Your task to perform on an android device: turn smart compose on in the gmail app Image 0: 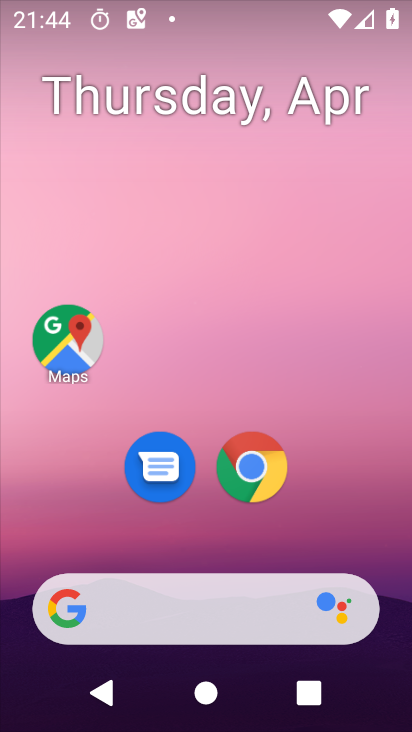
Step 0: drag from (204, 544) to (400, 447)
Your task to perform on an android device: turn smart compose on in the gmail app Image 1: 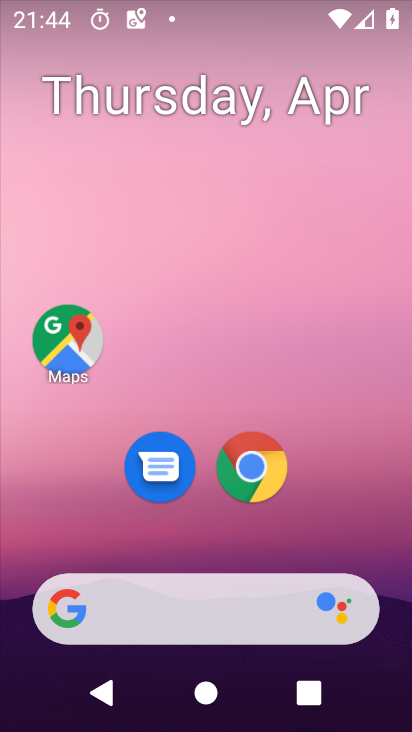
Step 1: click (350, 476)
Your task to perform on an android device: turn smart compose on in the gmail app Image 2: 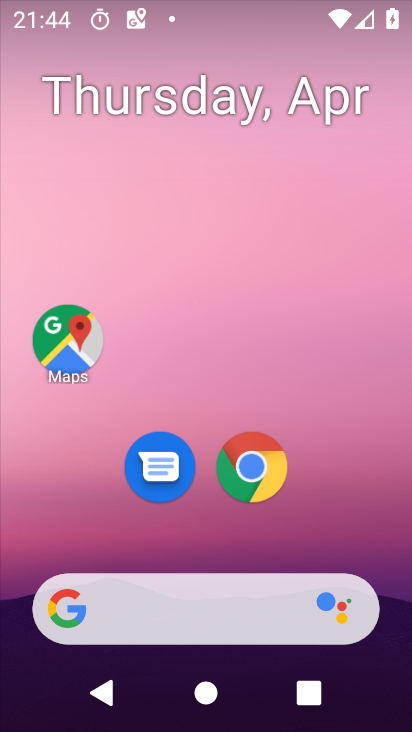
Step 2: click (262, 472)
Your task to perform on an android device: turn smart compose on in the gmail app Image 3: 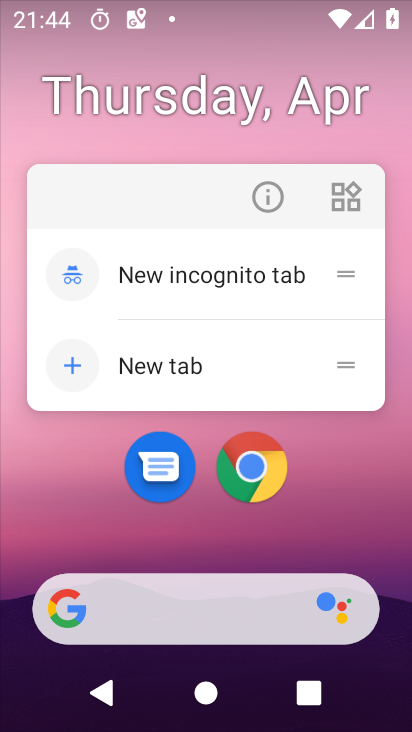
Step 3: click (253, 528)
Your task to perform on an android device: turn smart compose on in the gmail app Image 4: 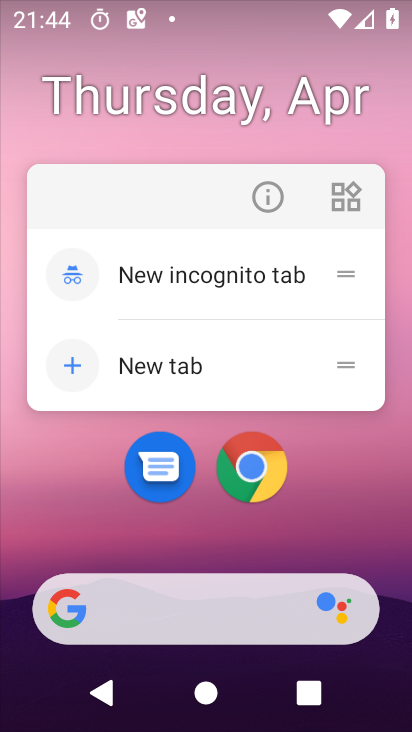
Step 4: drag from (200, 572) to (170, 0)
Your task to perform on an android device: turn smart compose on in the gmail app Image 5: 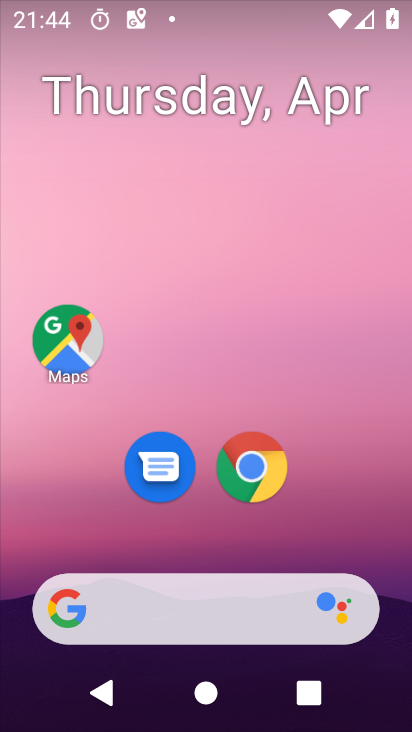
Step 5: drag from (184, 537) to (313, 14)
Your task to perform on an android device: turn smart compose on in the gmail app Image 6: 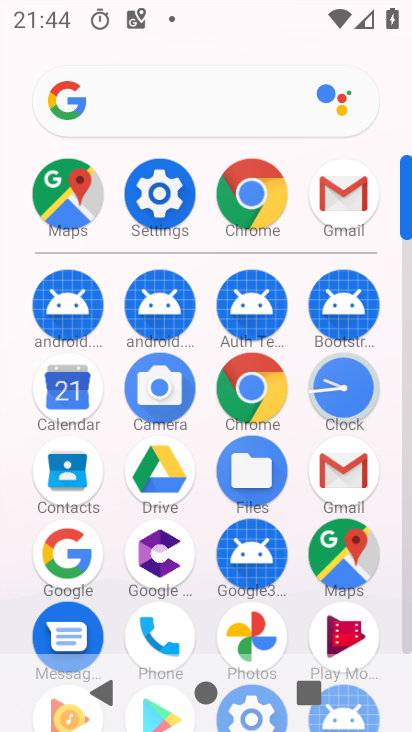
Step 6: click (357, 477)
Your task to perform on an android device: turn smart compose on in the gmail app Image 7: 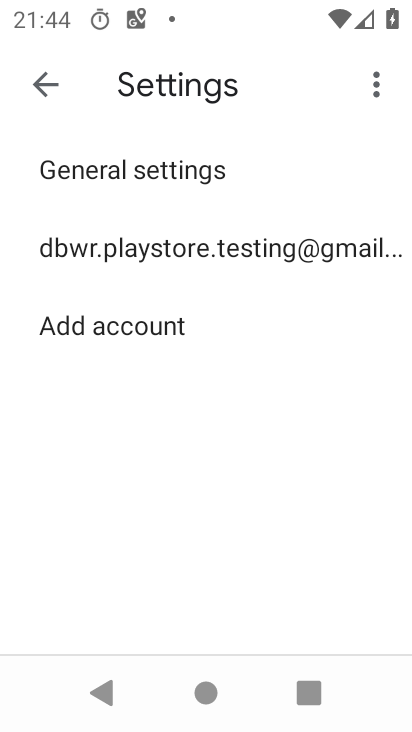
Step 7: click (211, 258)
Your task to perform on an android device: turn smart compose on in the gmail app Image 8: 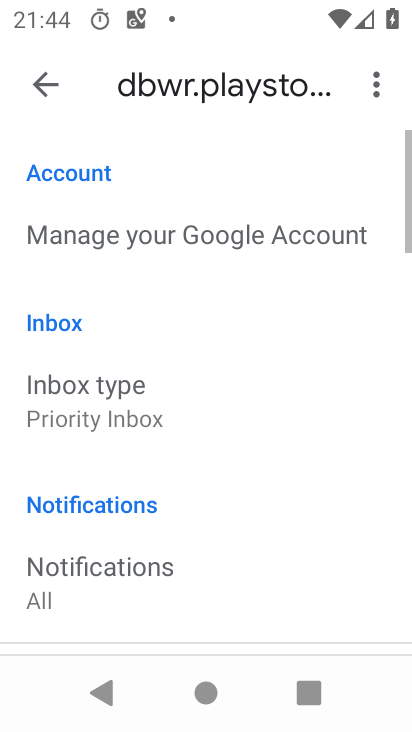
Step 8: task complete